Your task to perform on an android device: create a new album in the google photos Image 0: 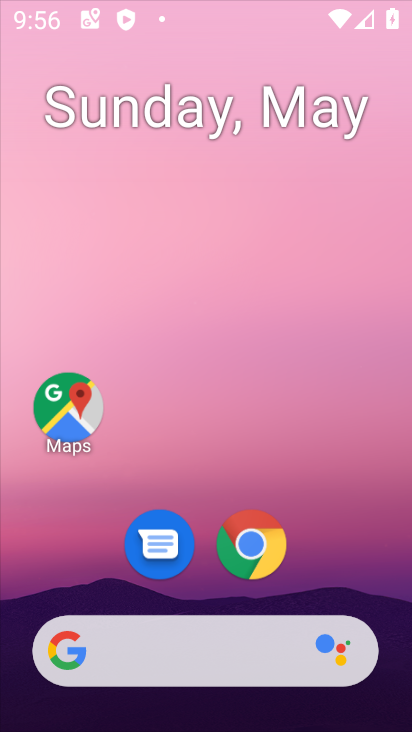
Step 0: drag from (392, 516) to (389, 13)
Your task to perform on an android device: create a new album in the google photos Image 1: 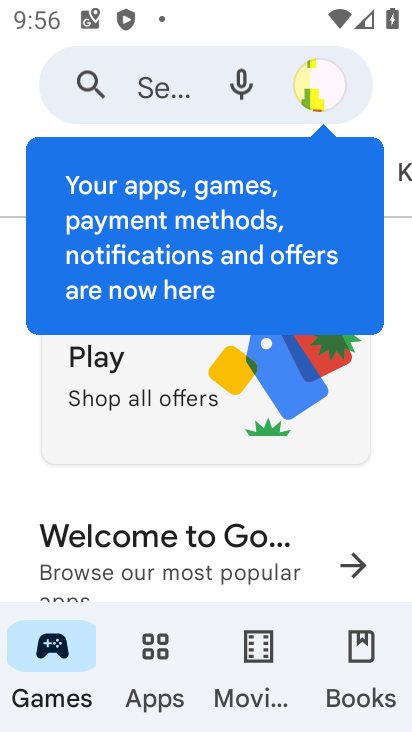
Step 1: press home button
Your task to perform on an android device: create a new album in the google photos Image 2: 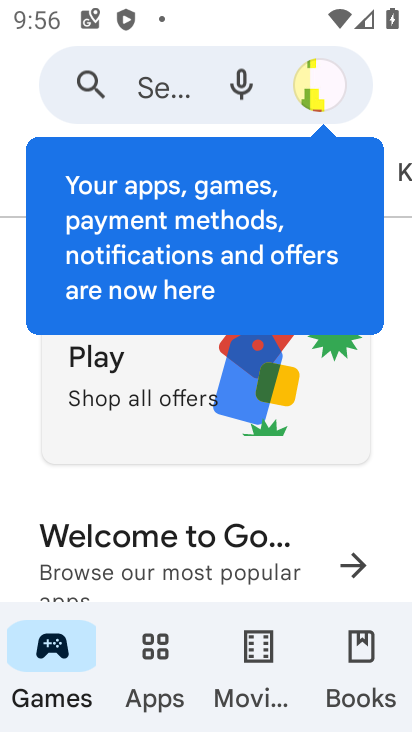
Step 2: drag from (389, 13) to (407, 417)
Your task to perform on an android device: create a new album in the google photos Image 3: 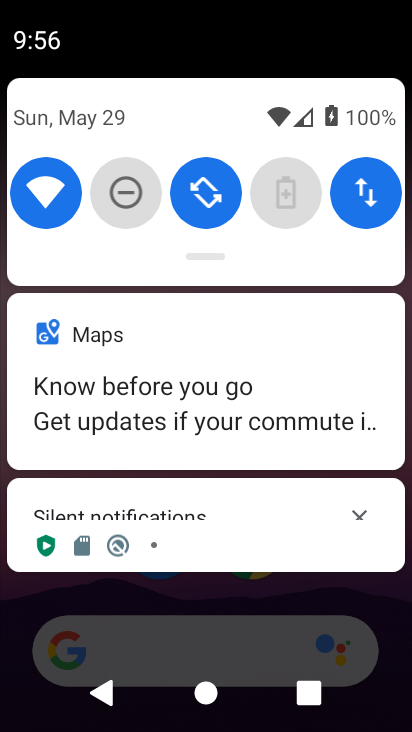
Step 3: drag from (320, 562) to (310, 62)
Your task to perform on an android device: create a new album in the google photos Image 4: 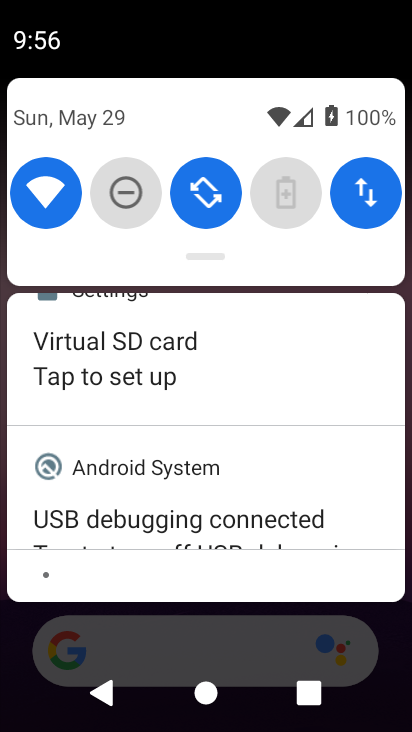
Step 4: drag from (302, 670) to (362, 42)
Your task to perform on an android device: create a new album in the google photos Image 5: 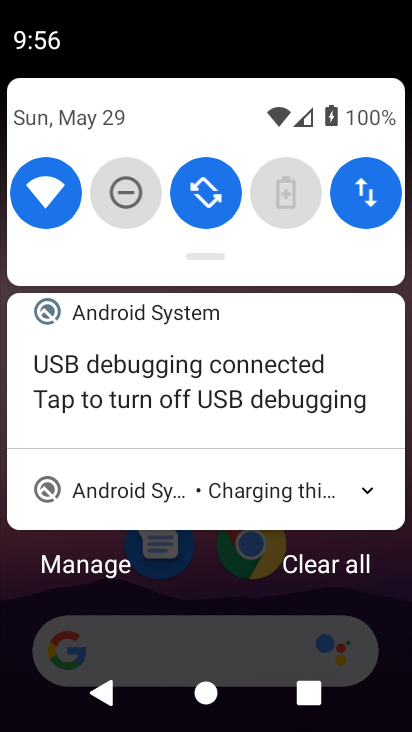
Step 5: drag from (218, 620) to (321, 17)
Your task to perform on an android device: create a new album in the google photos Image 6: 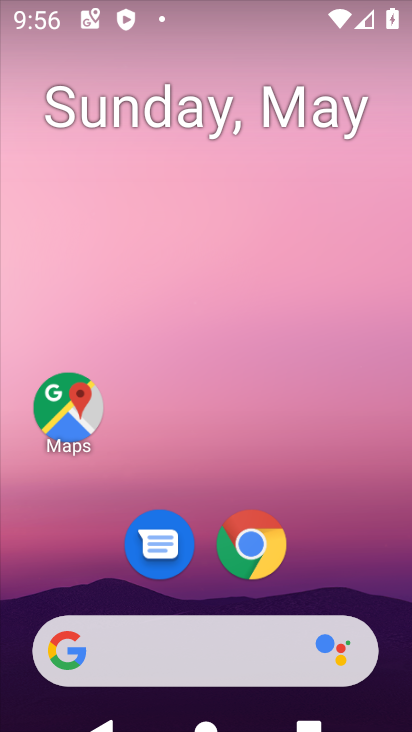
Step 6: drag from (331, 550) to (333, 19)
Your task to perform on an android device: create a new album in the google photos Image 7: 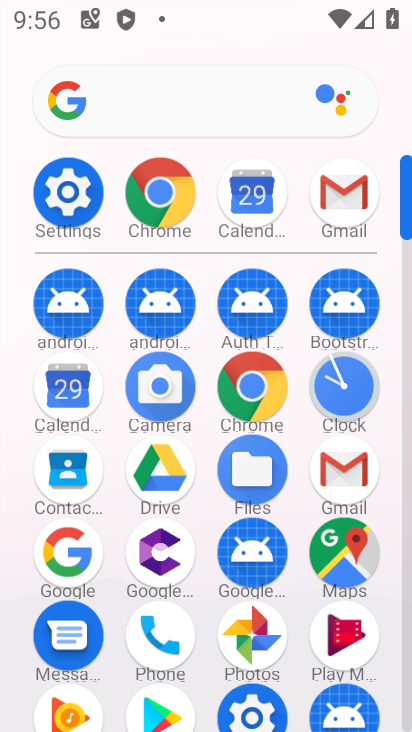
Step 7: drag from (395, 598) to (374, 222)
Your task to perform on an android device: create a new album in the google photos Image 8: 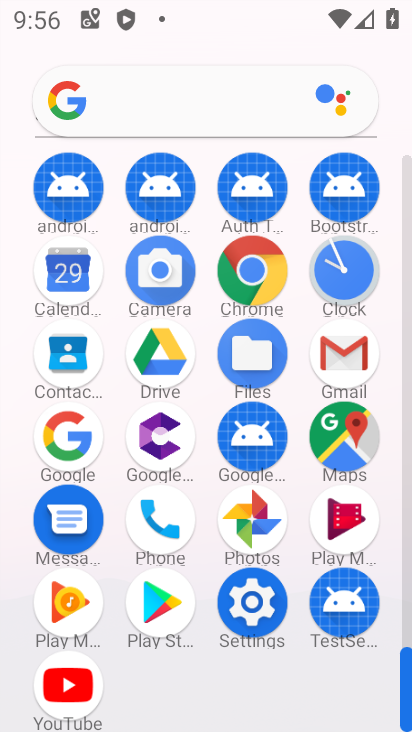
Step 8: click (247, 516)
Your task to perform on an android device: create a new album in the google photos Image 9: 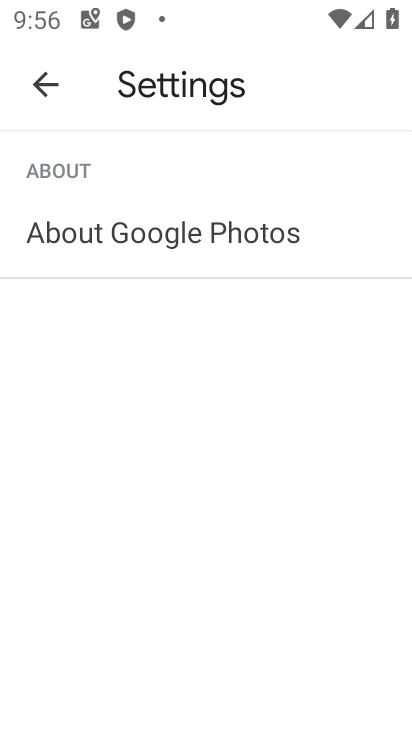
Step 9: click (60, 96)
Your task to perform on an android device: create a new album in the google photos Image 10: 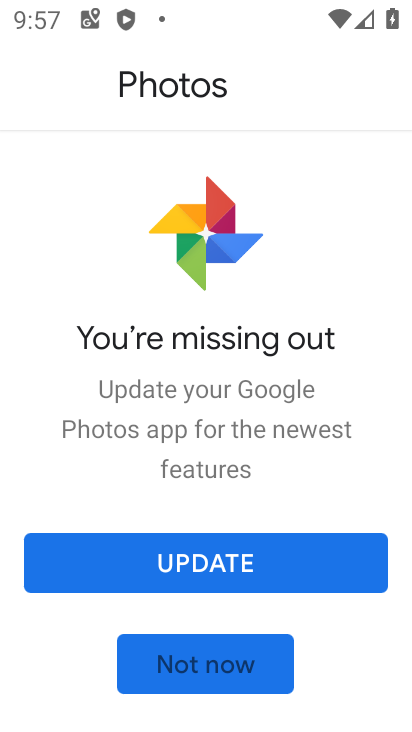
Step 10: click (212, 546)
Your task to perform on an android device: create a new album in the google photos Image 11: 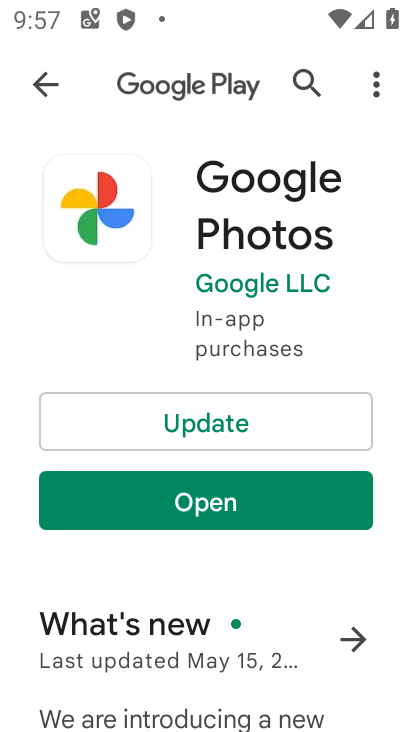
Step 11: click (221, 424)
Your task to perform on an android device: create a new album in the google photos Image 12: 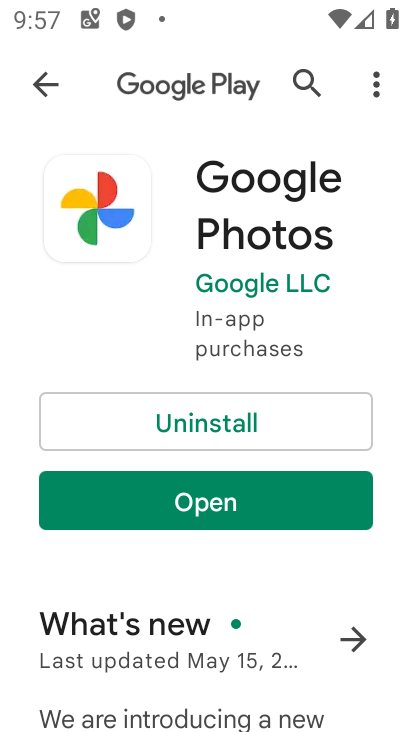
Step 12: click (236, 536)
Your task to perform on an android device: create a new album in the google photos Image 13: 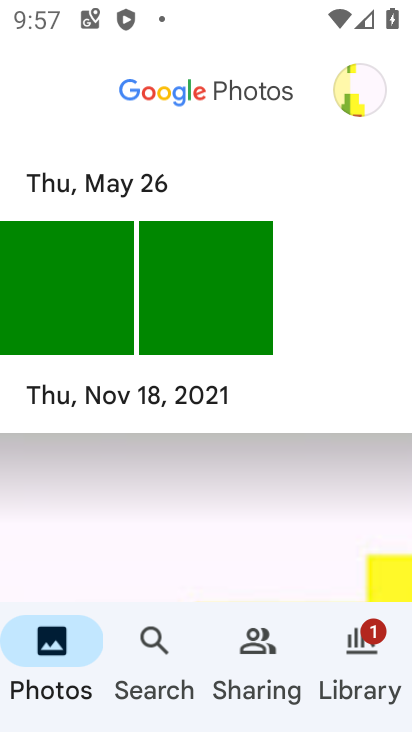
Step 13: task complete